Your task to perform on an android device: Do I have any events today? Image 0: 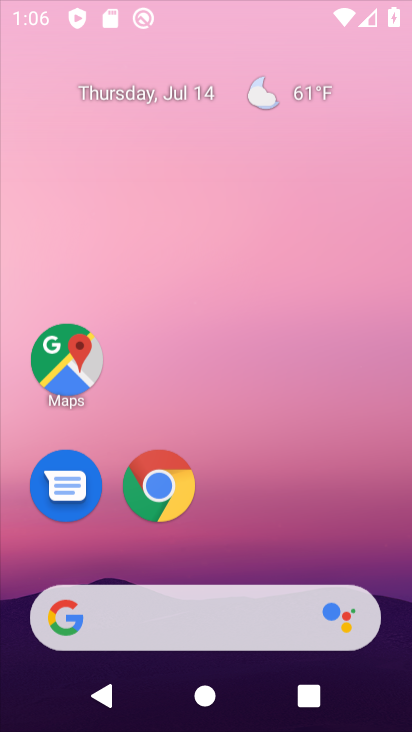
Step 0: click (357, 189)
Your task to perform on an android device: Do I have any events today? Image 1: 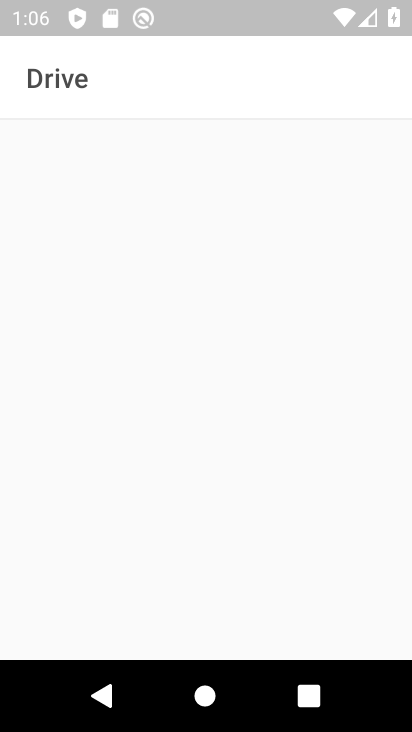
Step 1: press home button
Your task to perform on an android device: Do I have any events today? Image 2: 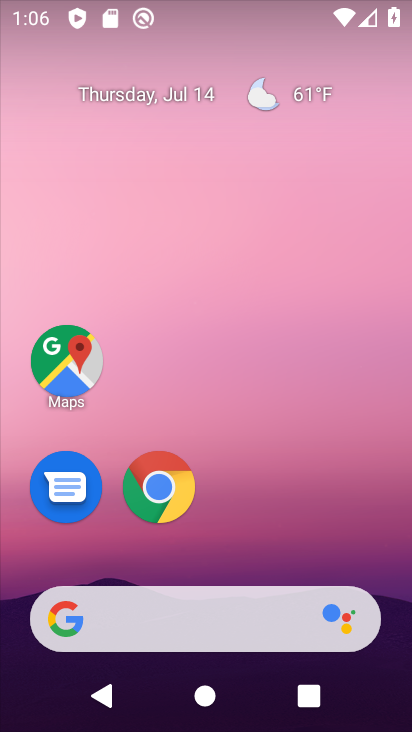
Step 2: drag from (359, 537) to (411, 301)
Your task to perform on an android device: Do I have any events today? Image 3: 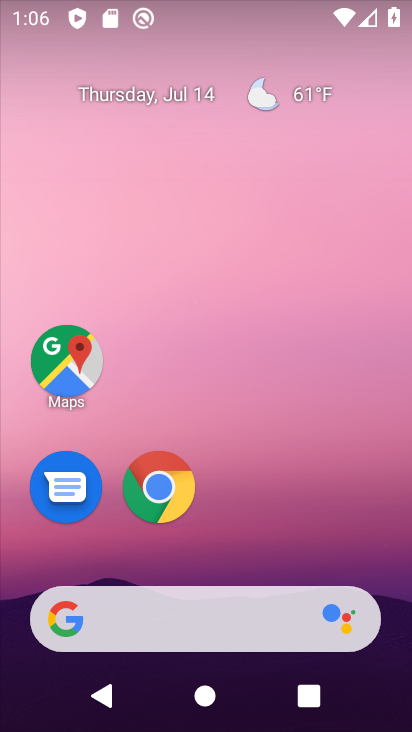
Step 3: drag from (318, 514) to (343, 48)
Your task to perform on an android device: Do I have any events today? Image 4: 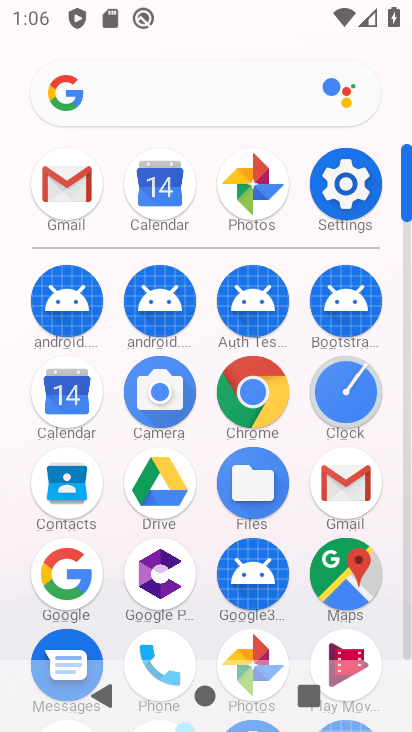
Step 4: click (75, 402)
Your task to perform on an android device: Do I have any events today? Image 5: 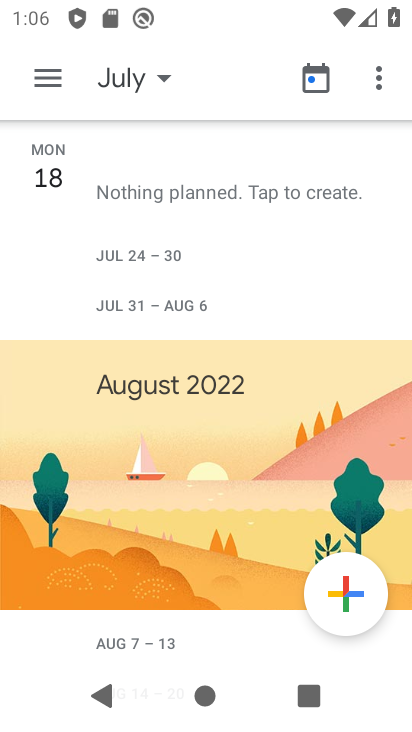
Step 5: click (158, 86)
Your task to perform on an android device: Do I have any events today? Image 6: 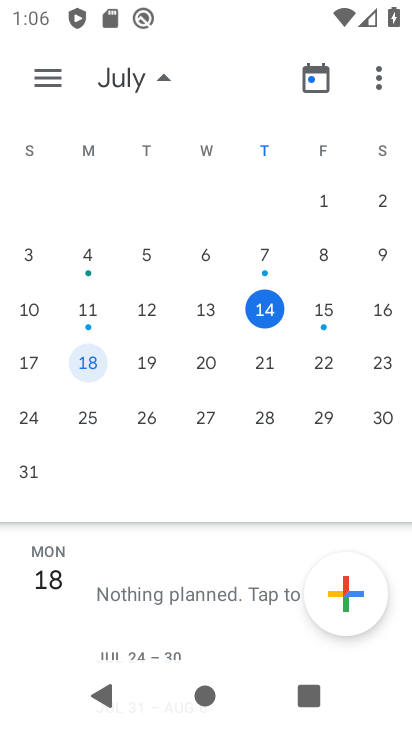
Step 6: click (263, 316)
Your task to perform on an android device: Do I have any events today? Image 7: 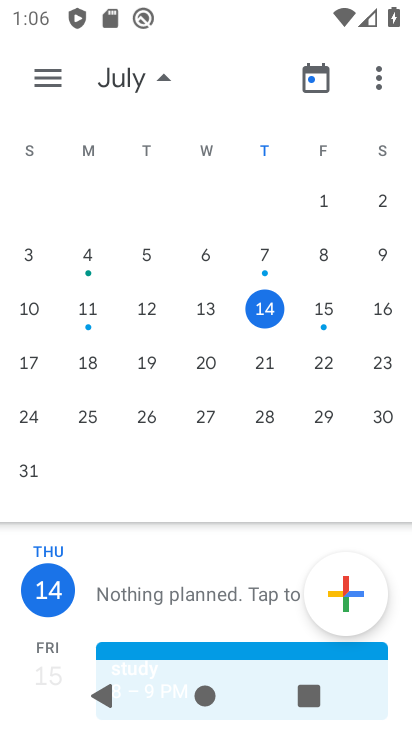
Step 7: task complete